Your task to perform on an android device: check data usage Image 0: 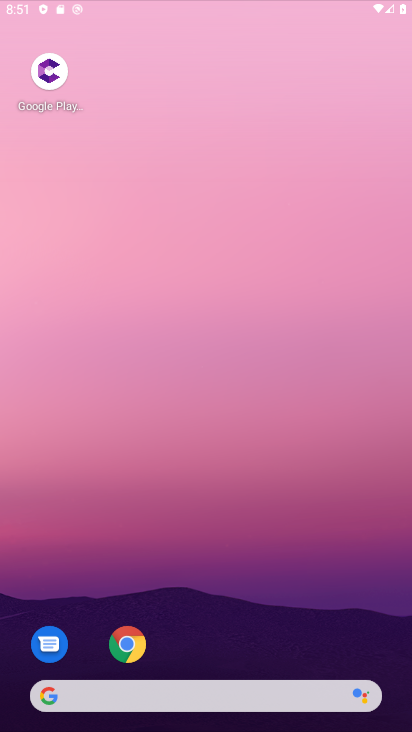
Step 0: click (183, 691)
Your task to perform on an android device: check data usage Image 1: 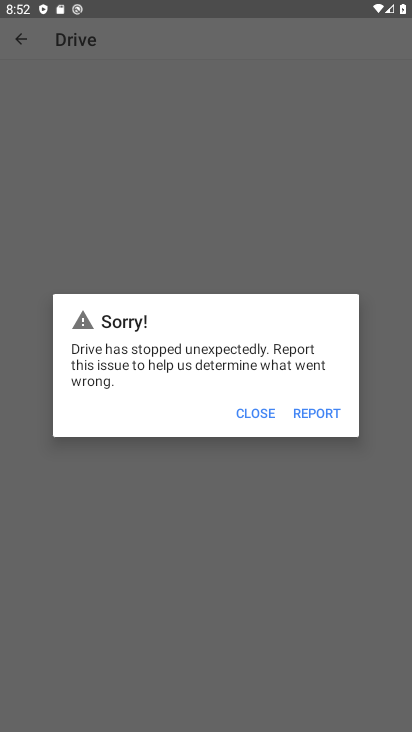
Step 1: click (127, 690)
Your task to perform on an android device: check data usage Image 2: 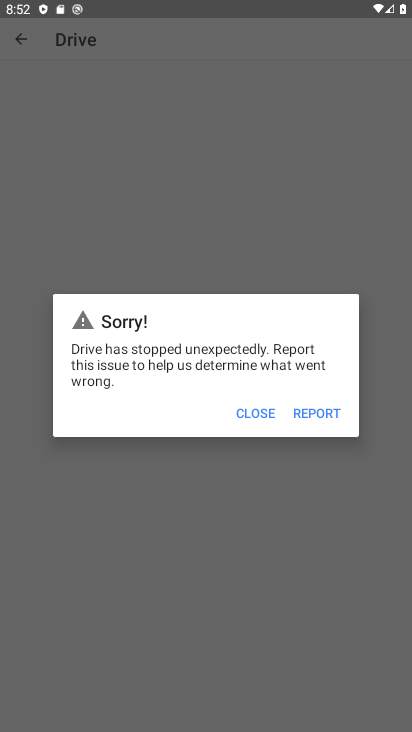
Step 2: click (254, 400)
Your task to perform on an android device: check data usage Image 3: 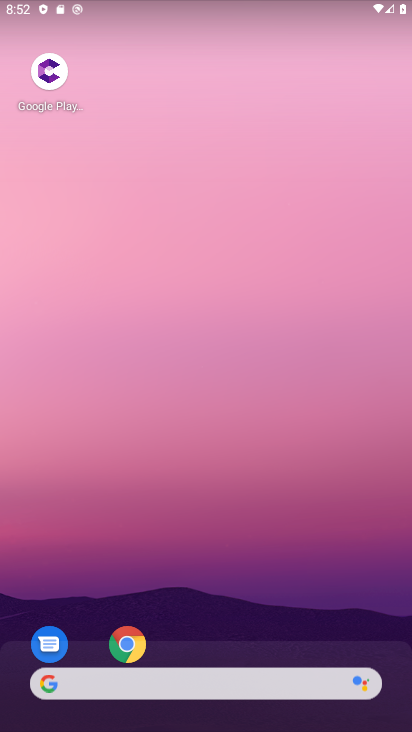
Step 3: drag from (199, 628) to (234, 24)
Your task to perform on an android device: check data usage Image 4: 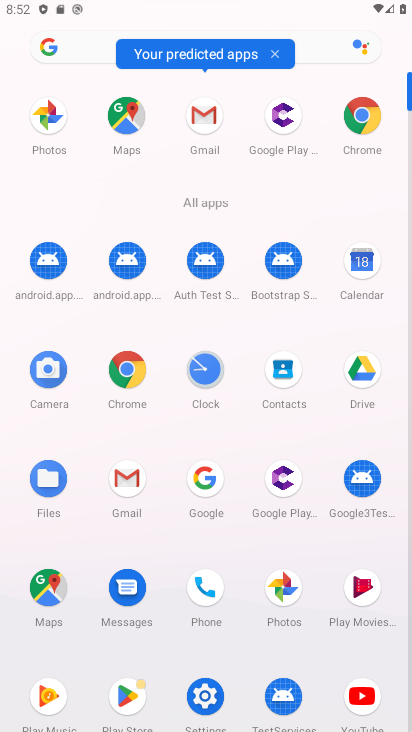
Step 4: click (218, 695)
Your task to perform on an android device: check data usage Image 5: 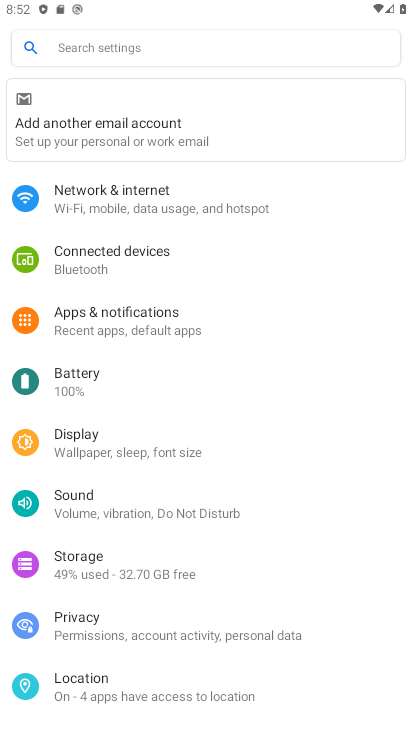
Step 5: drag from (165, 606) to (241, 197)
Your task to perform on an android device: check data usage Image 6: 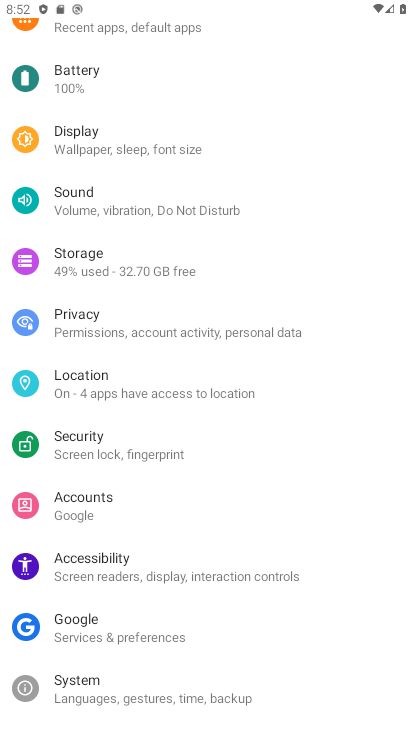
Step 6: drag from (146, 593) to (264, 76)
Your task to perform on an android device: check data usage Image 7: 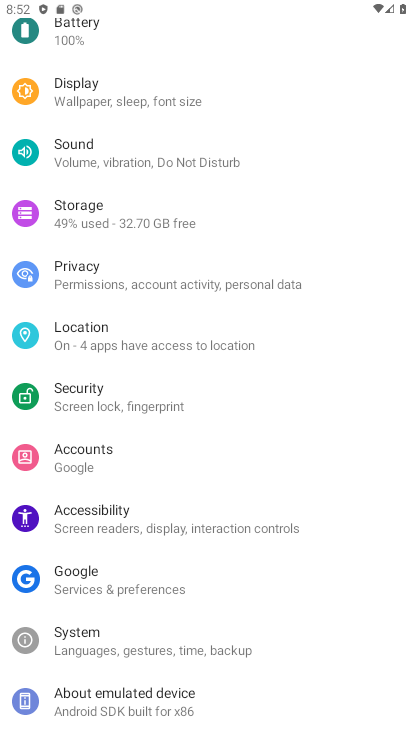
Step 7: drag from (189, 95) to (169, 725)
Your task to perform on an android device: check data usage Image 8: 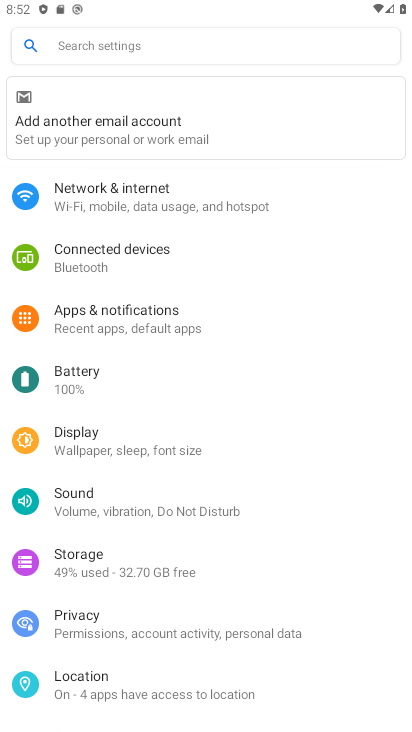
Step 8: click (137, 210)
Your task to perform on an android device: check data usage Image 9: 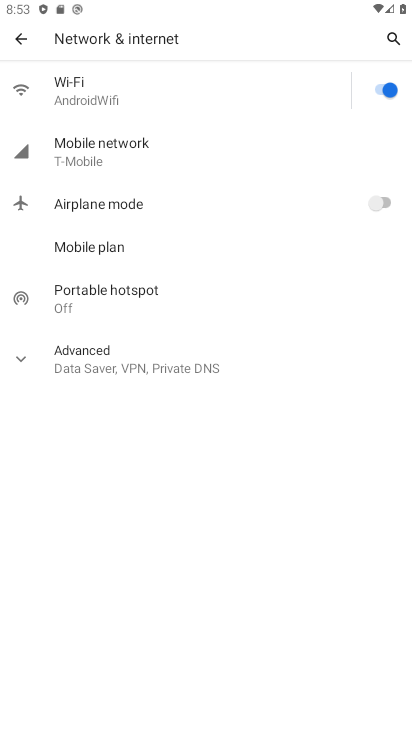
Step 9: click (109, 163)
Your task to perform on an android device: check data usage Image 10: 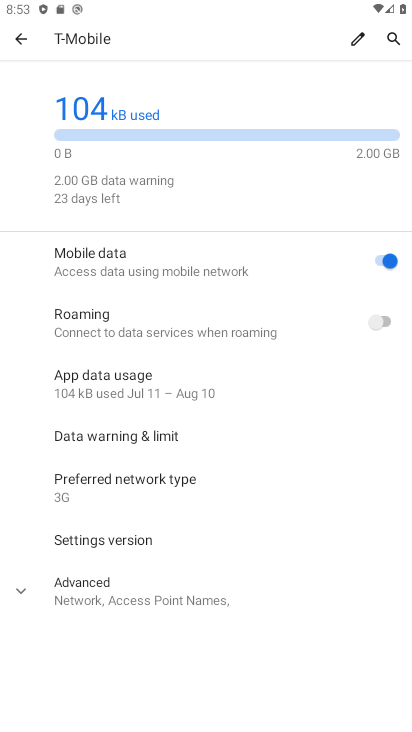
Step 10: click (97, 402)
Your task to perform on an android device: check data usage Image 11: 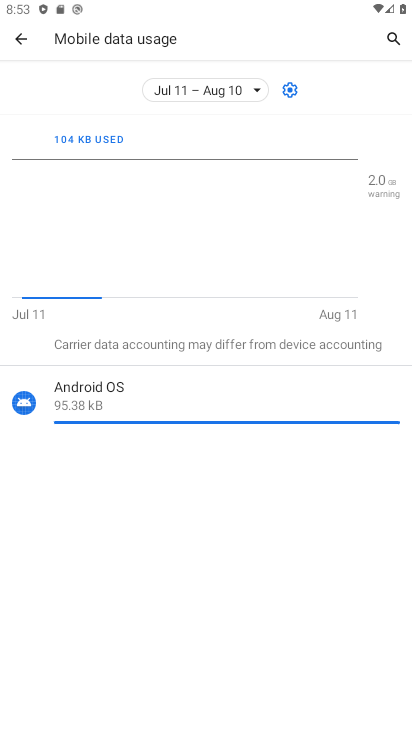
Step 11: task complete